Your task to perform on an android device: Open Chrome and go to settings Image 0: 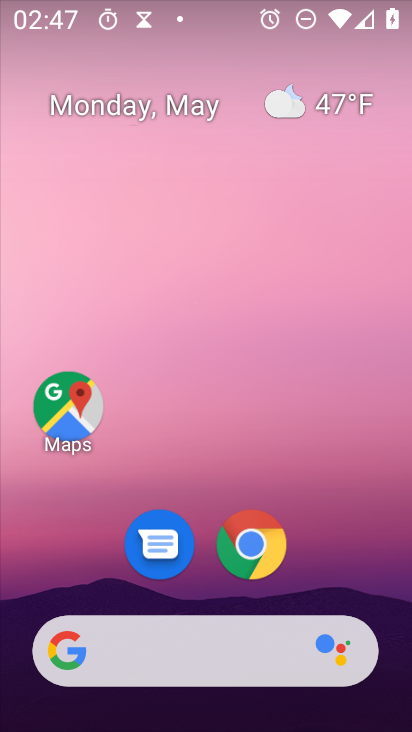
Step 0: click (268, 548)
Your task to perform on an android device: Open Chrome and go to settings Image 1: 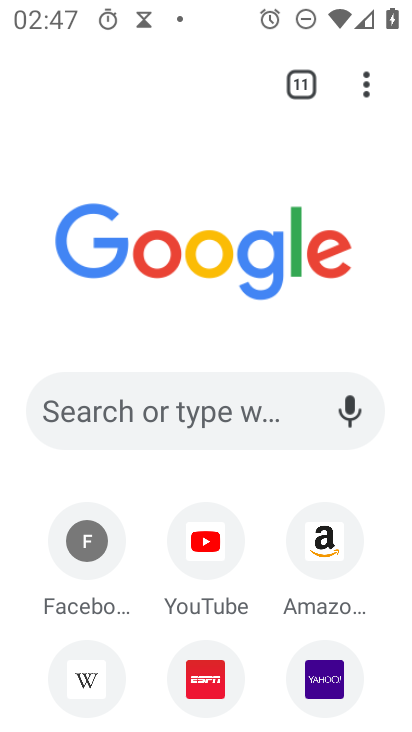
Step 1: click (365, 74)
Your task to perform on an android device: Open Chrome and go to settings Image 2: 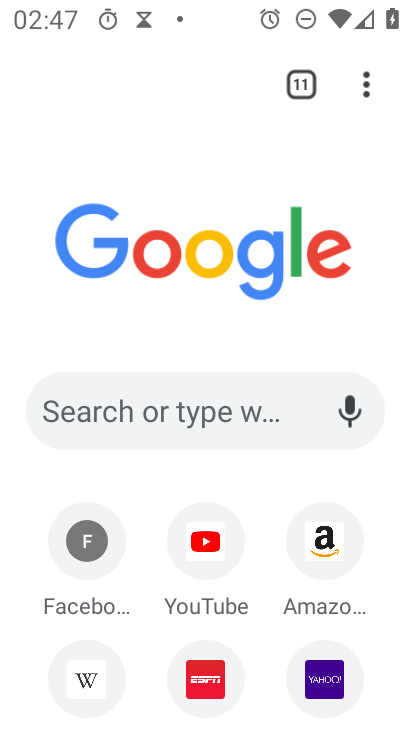
Step 2: task complete